Your task to perform on an android device: turn off priority inbox in the gmail app Image 0: 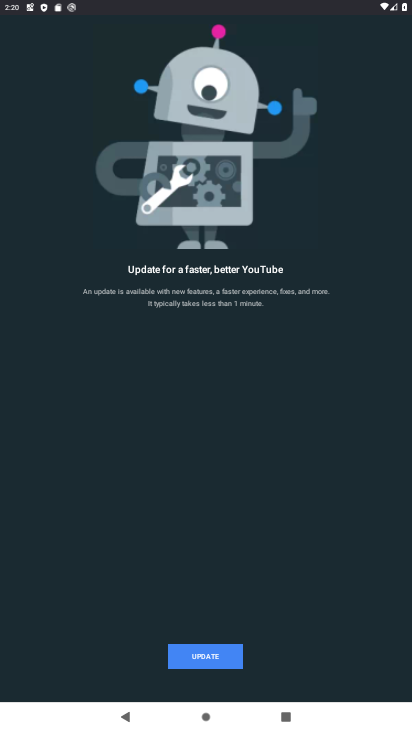
Step 0: press back button
Your task to perform on an android device: turn off priority inbox in the gmail app Image 1: 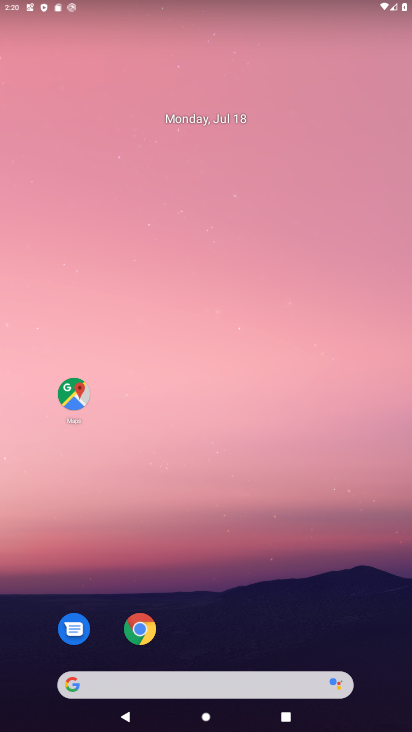
Step 1: drag from (182, 666) to (177, 144)
Your task to perform on an android device: turn off priority inbox in the gmail app Image 2: 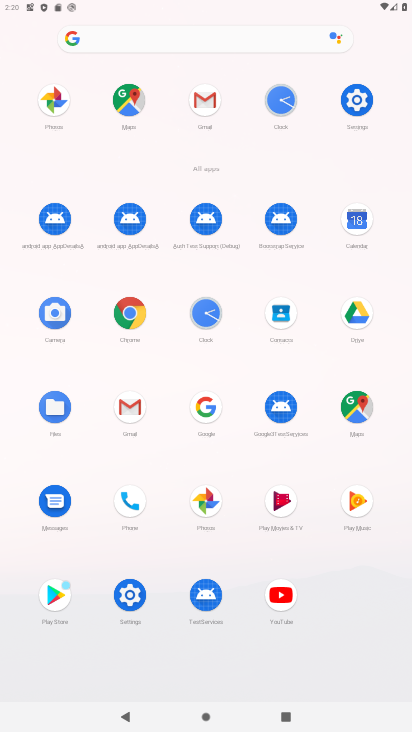
Step 2: click (142, 417)
Your task to perform on an android device: turn off priority inbox in the gmail app Image 3: 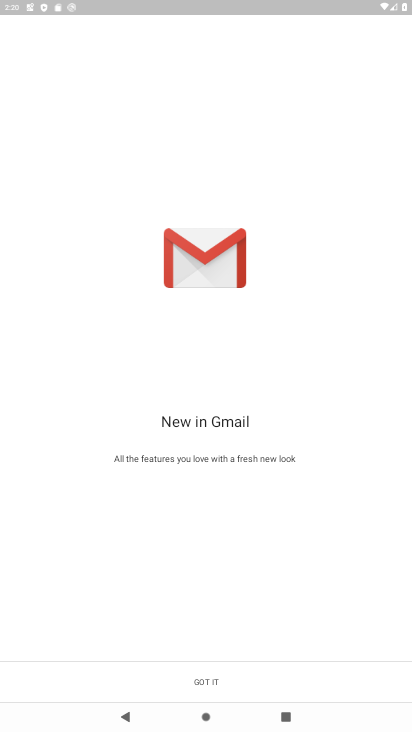
Step 3: click (172, 678)
Your task to perform on an android device: turn off priority inbox in the gmail app Image 4: 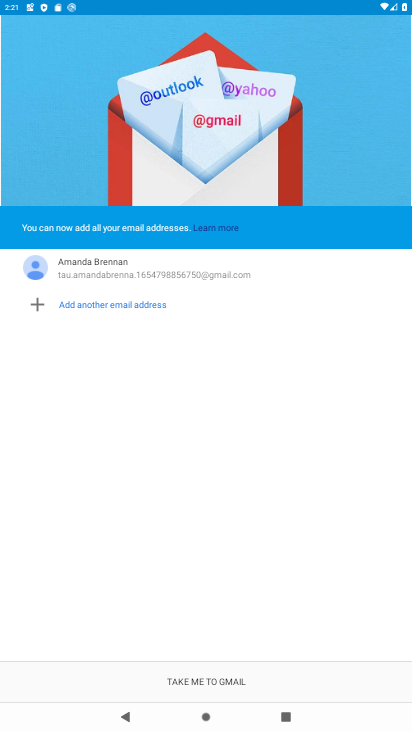
Step 4: click (167, 674)
Your task to perform on an android device: turn off priority inbox in the gmail app Image 5: 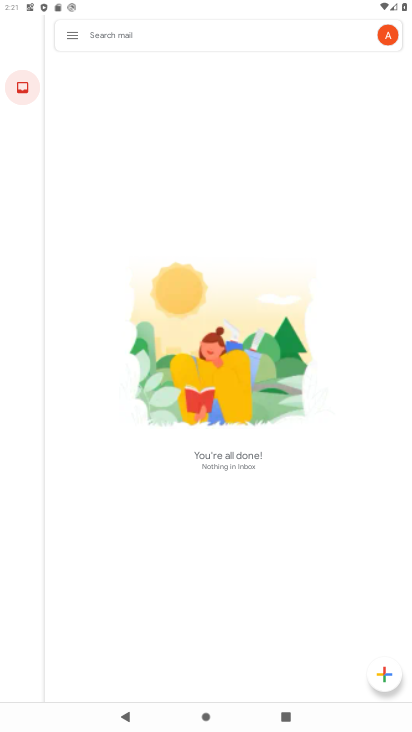
Step 5: click (63, 30)
Your task to perform on an android device: turn off priority inbox in the gmail app Image 6: 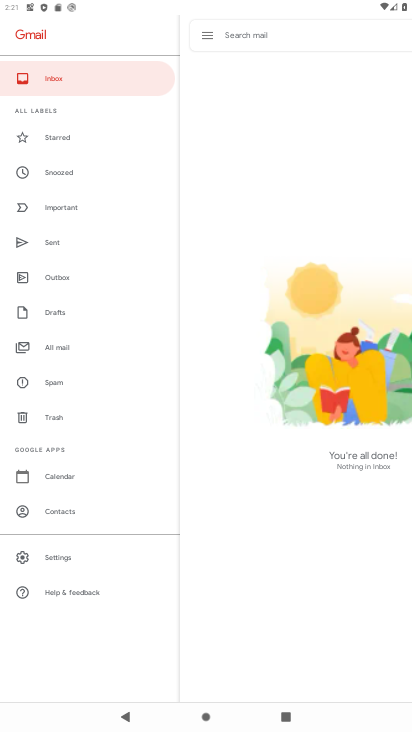
Step 6: click (44, 561)
Your task to perform on an android device: turn off priority inbox in the gmail app Image 7: 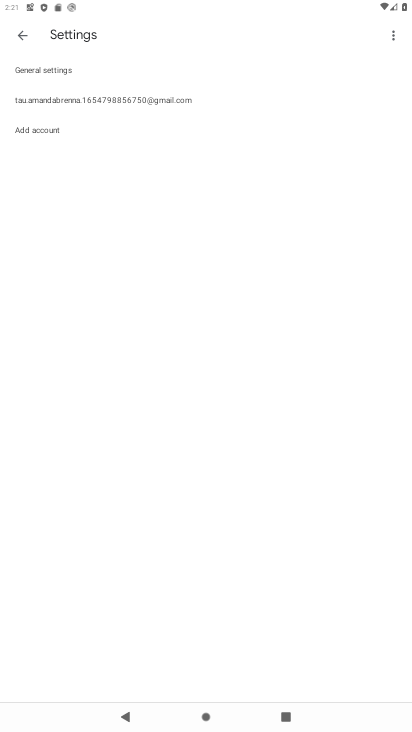
Step 7: click (47, 99)
Your task to perform on an android device: turn off priority inbox in the gmail app Image 8: 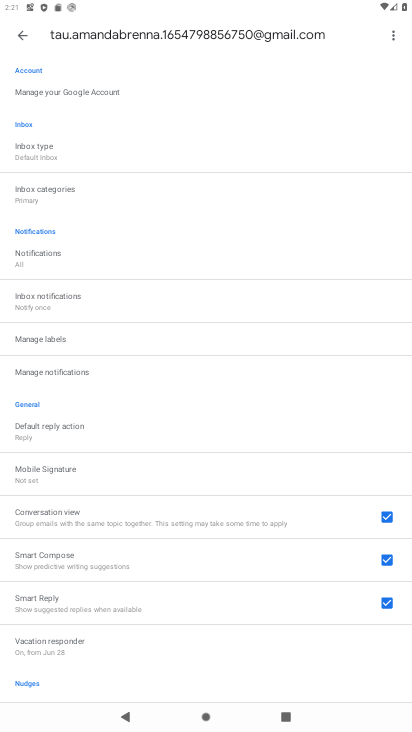
Step 8: click (64, 159)
Your task to perform on an android device: turn off priority inbox in the gmail app Image 9: 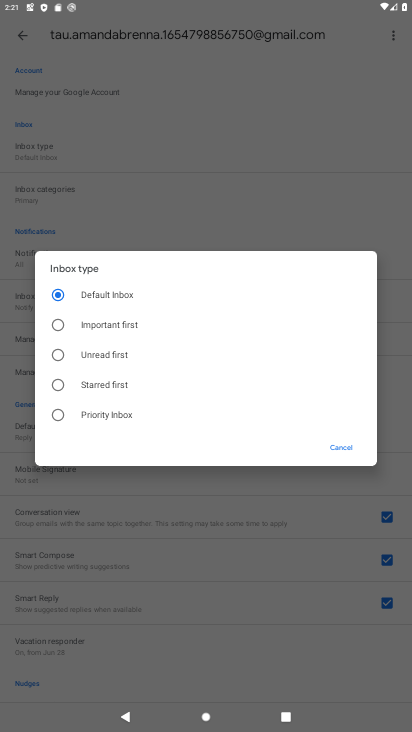
Step 9: task complete